Your task to perform on an android device: Open eBay Image 0: 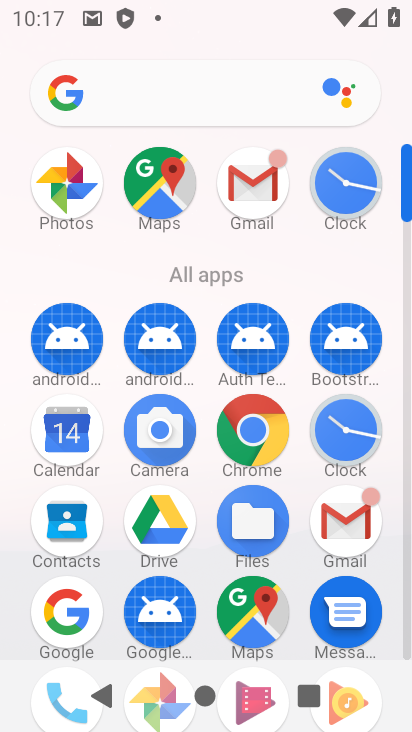
Step 0: click (249, 441)
Your task to perform on an android device: Open eBay Image 1: 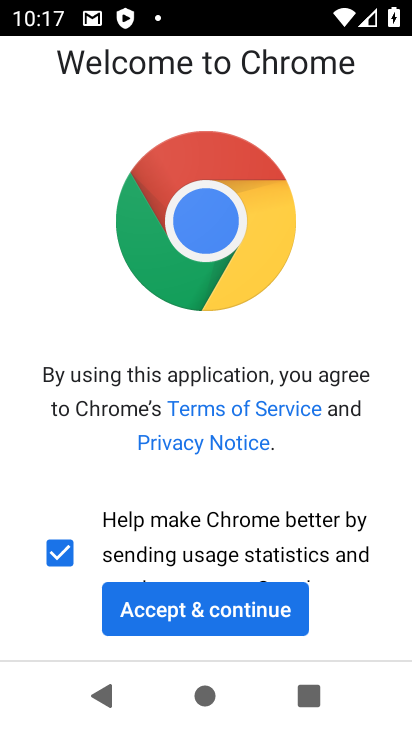
Step 1: click (194, 608)
Your task to perform on an android device: Open eBay Image 2: 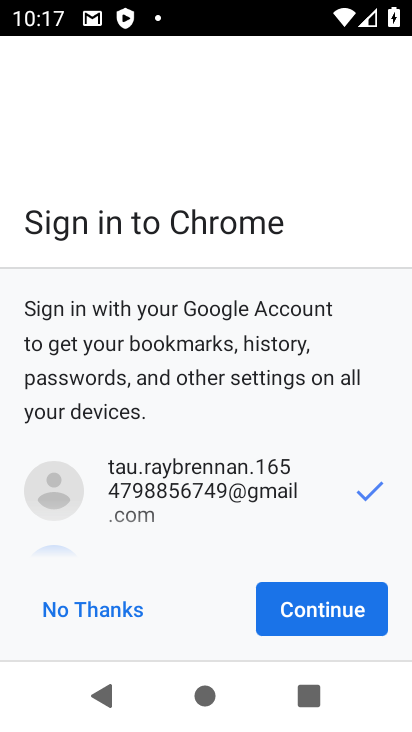
Step 2: click (333, 594)
Your task to perform on an android device: Open eBay Image 3: 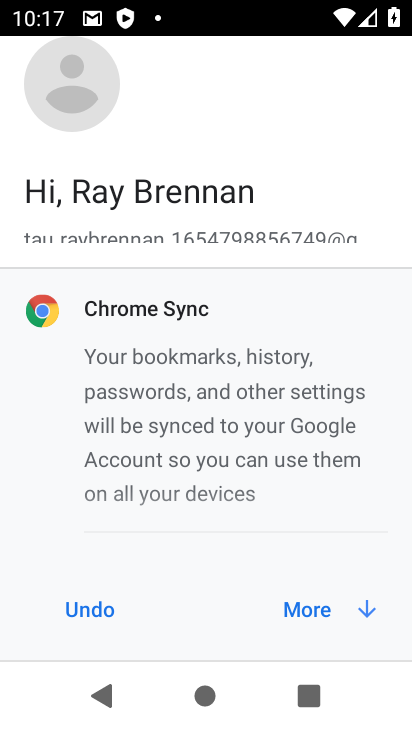
Step 3: click (318, 602)
Your task to perform on an android device: Open eBay Image 4: 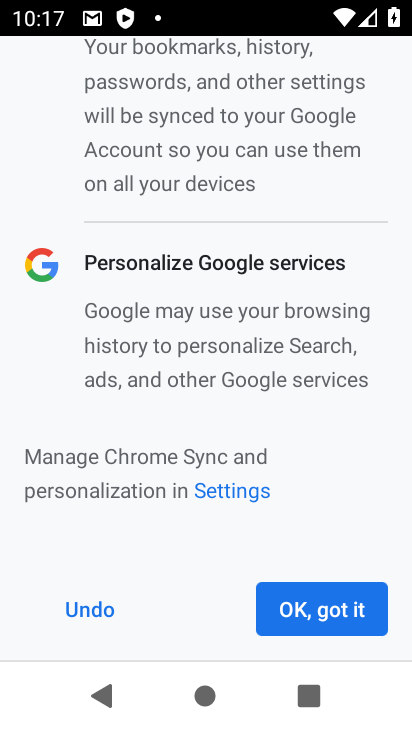
Step 4: click (318, 602)
Your task to perform on an android device: Open eBay Image 5: 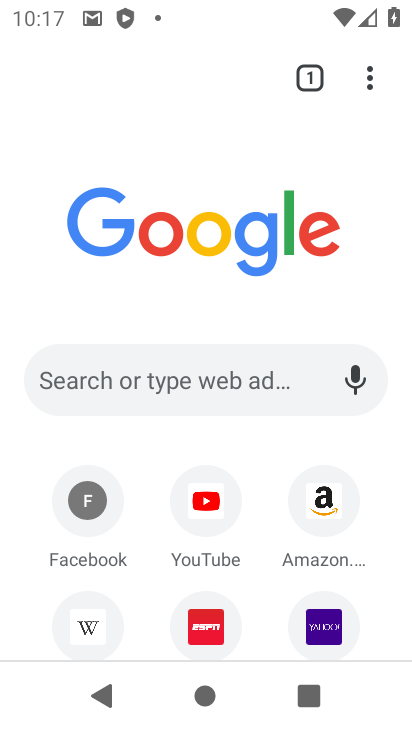
Step 5: drag from (165, 593) to (181, 217)
Your task to perform on an android device: Open eBay Image 6: 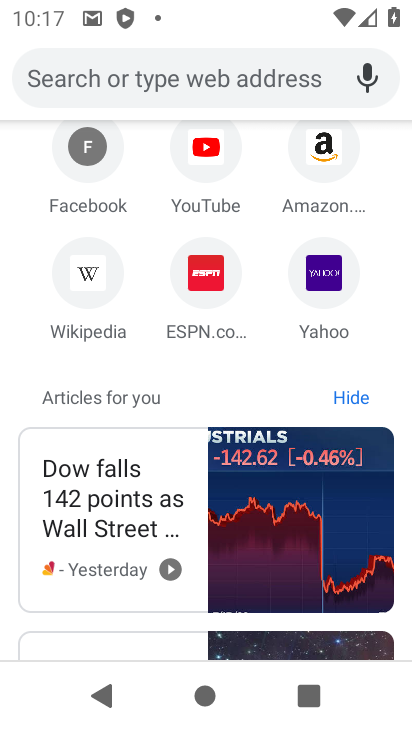
Step 6: click (132, 71)
Your task to perform on an android device: Open eBay Image 7: 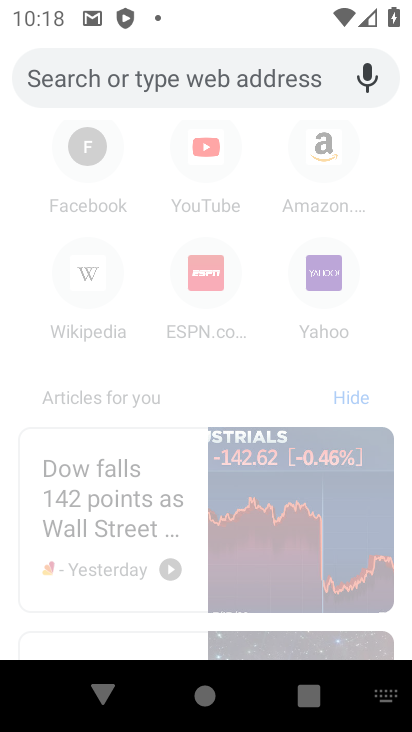
Step 7: type "ebay"
Your task to perform on an android device: Open eBay Image 8: 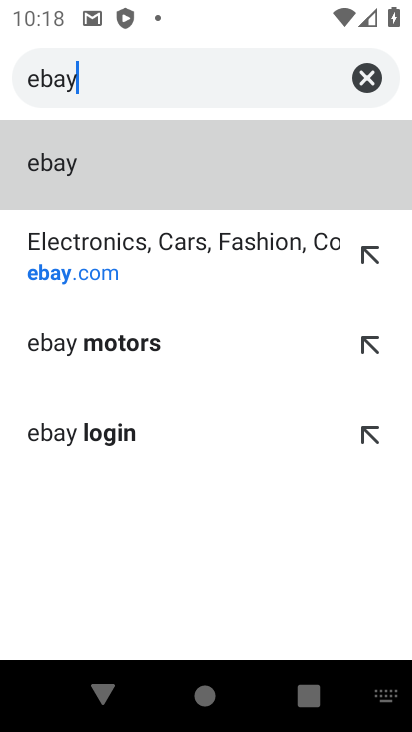
Step 8: click (72, 253)
Your task to perform on an android device: Open eBay Image 9: 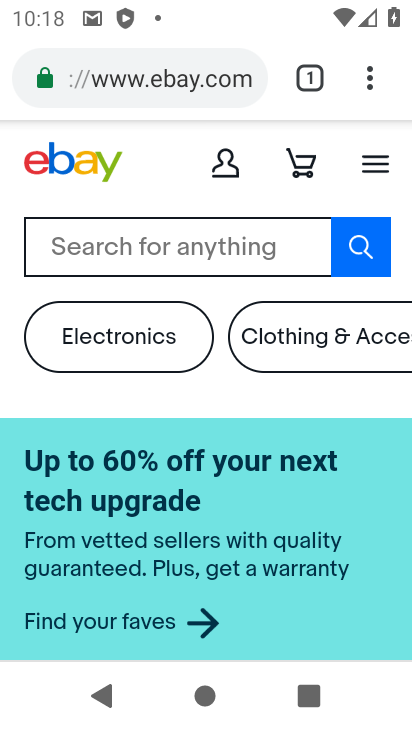
Step 9: task complete